Your task to perform on an android device: change timer sound Image 0: 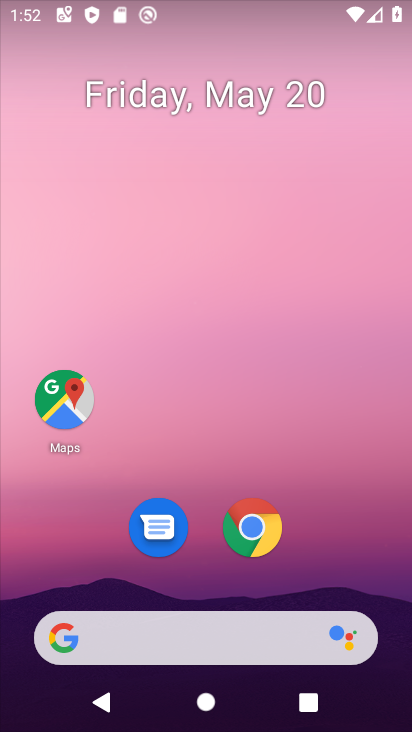
Step 0: drag from (268, 708) to (275, 68)
Your task to perform on an android device: change timer sound Image 1: 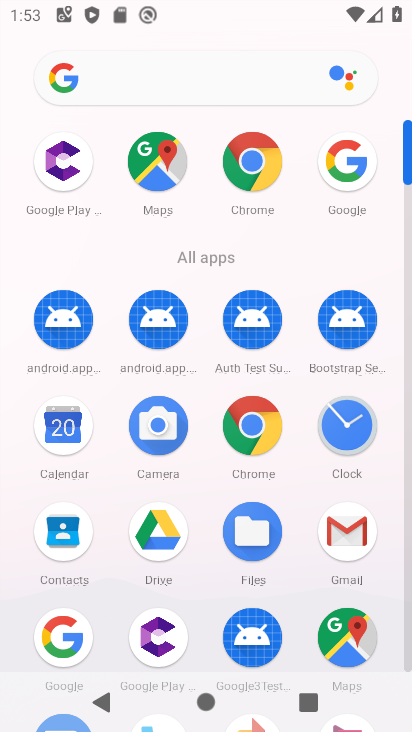
Step 1: click (356, 423)
Your task to perform on an android device: change timer sound Image 2: 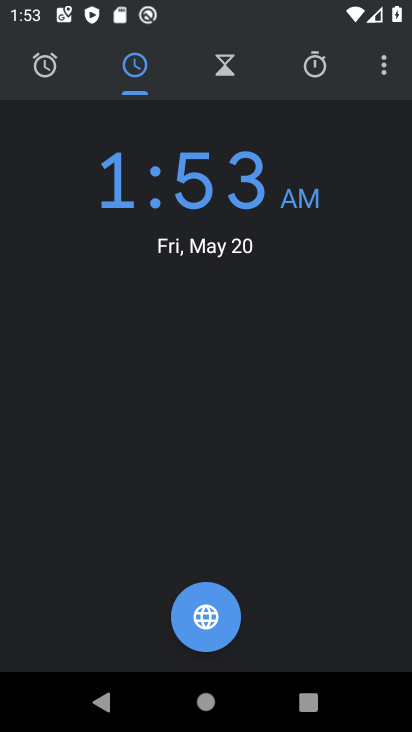
Step 2: click (386, 72)
Your task to perform on an android device: change timer sound Image 3: 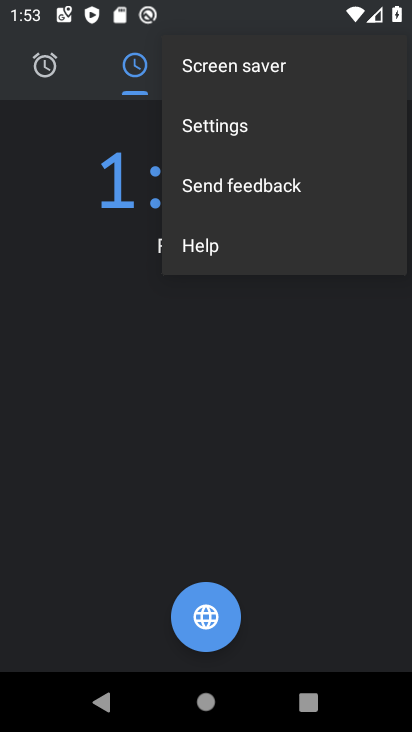
Step 3: click (265, 128)
Your task to perform on an android device: change timer sound Image 4: 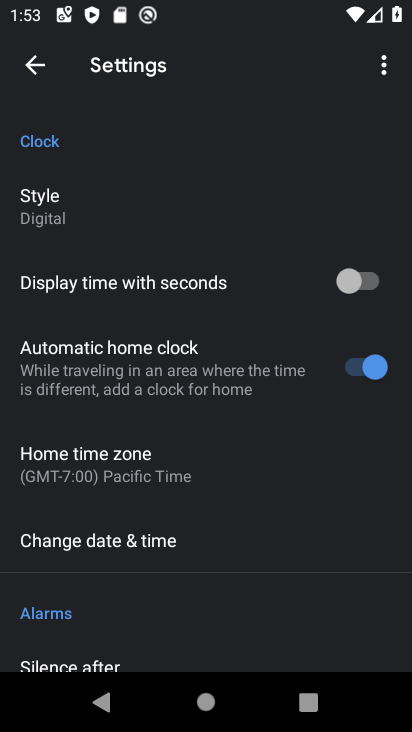
Step 4: drag from (262, 602) to (214, 97)
Your task to perform on an android device: change timer sound Image 5: 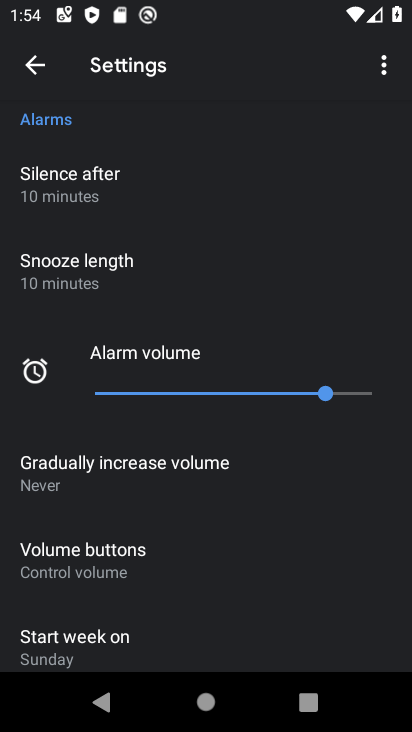
Step 5: drag from (207, 175) to (206, 506)
Your task to perform on an android device: change timer sound Image 6: 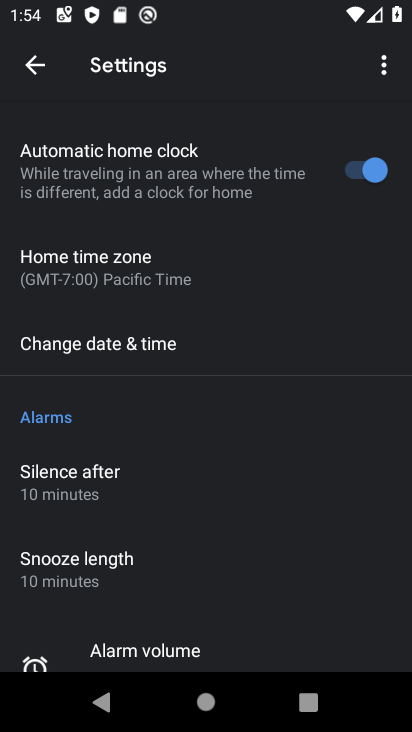
Step 6: drag from (251, 237) to (228, 574)
Your task to perform on an android device: change timer sound Image 7: 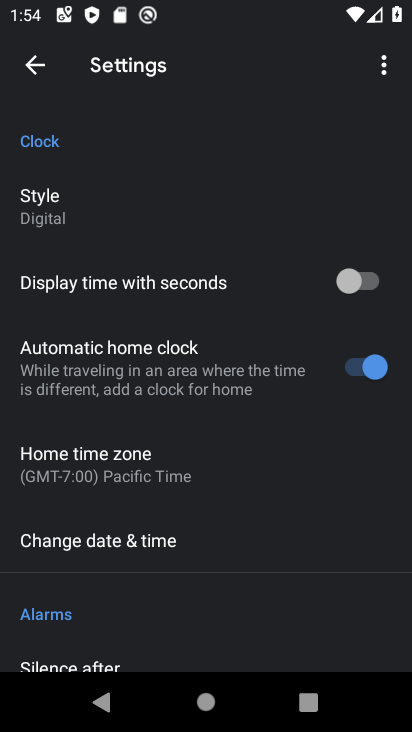
Step 7: drag from (243, 458) to (233, 38)
Your task to perform on an android device: change timer sound Image 8: 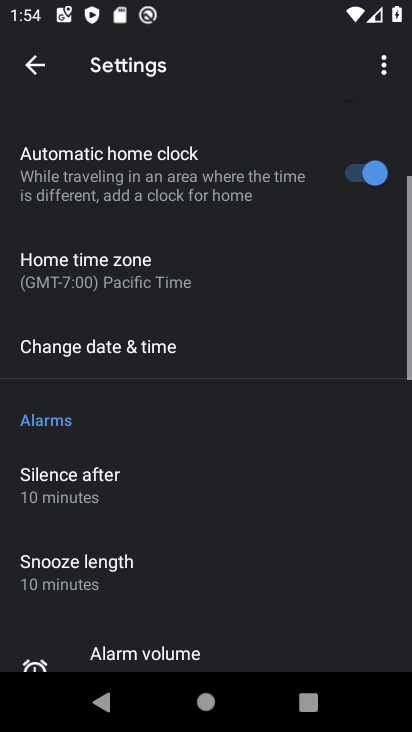
Step 8: drag from (218, 607) to (206, 234)
Your task to perform on an android device: change timer sound Image 9: 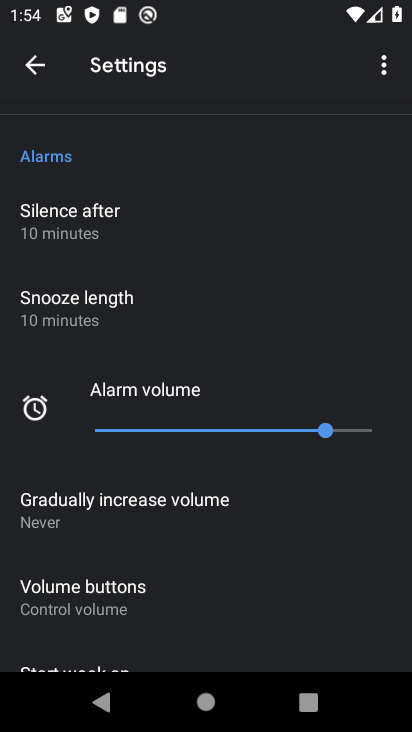
Step 9: drag from (187, 625) to (132, 226)
Your task to perform on an android device: change timer sound Image 10: 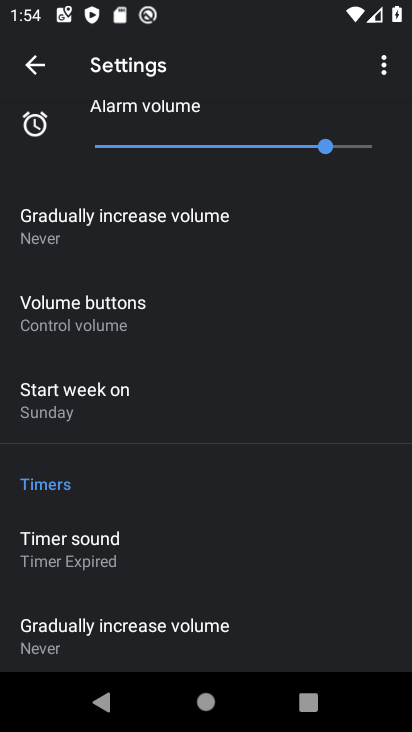
Step 10: click (143, 546)
Your task to perform on an android device: change timer sound Image 11: 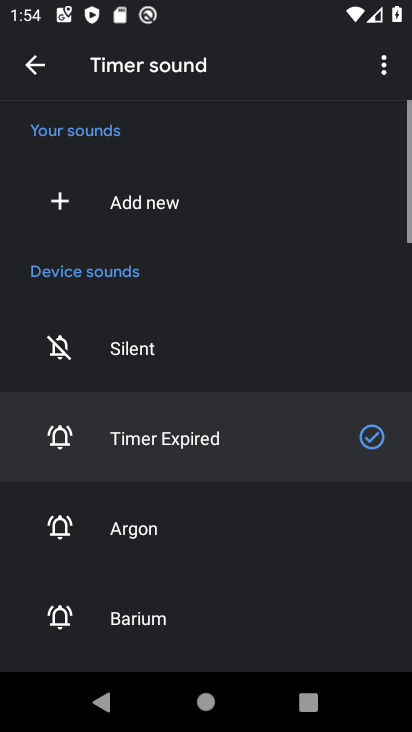
Step 11: click (147, 619)
Your task to perform on an android device: change timer sound Image 12: 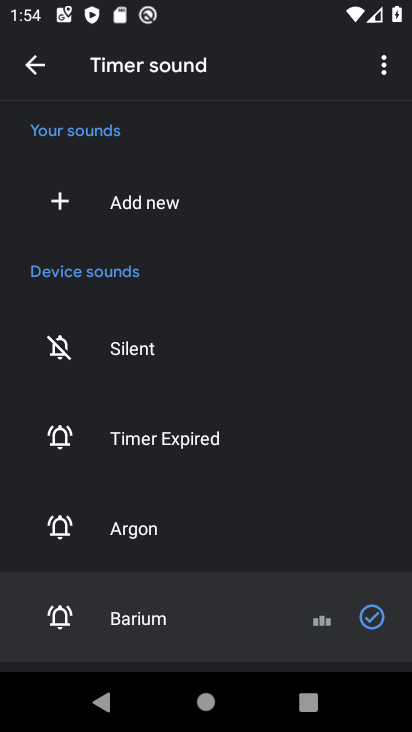
Step 12: task complete